Your task to perform on an android device: Turn on the flashlight Image 0: 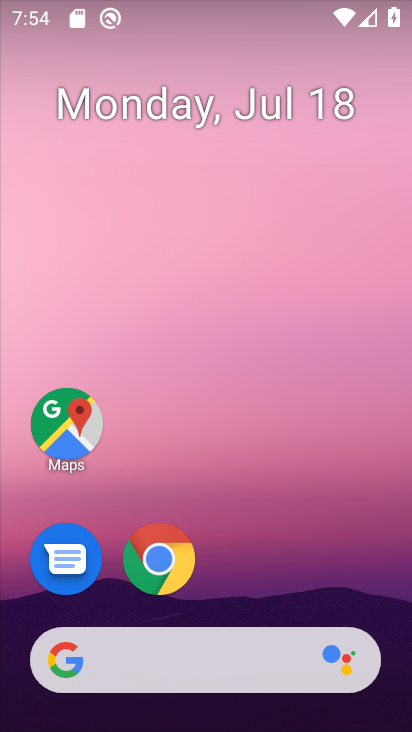
Step 0: drag from (231, 7) to (268, 386)
Your task to perform on an android device: Turn on the flashlight Image 1: 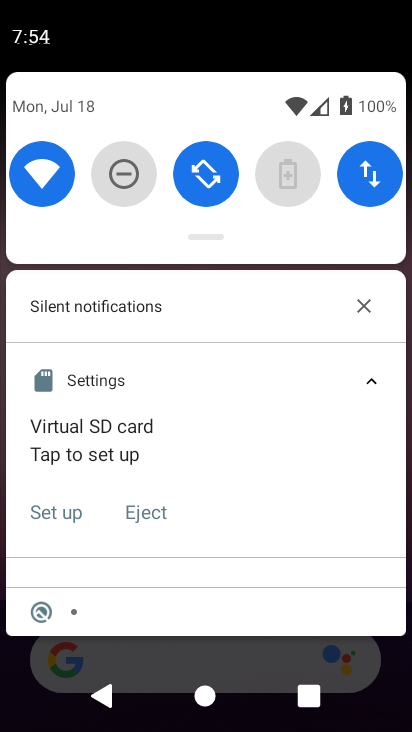
Step 1: drag from (233, 99) to (255, 348)
Your task to perform on an android device: Turn on the flashlight Image 2: 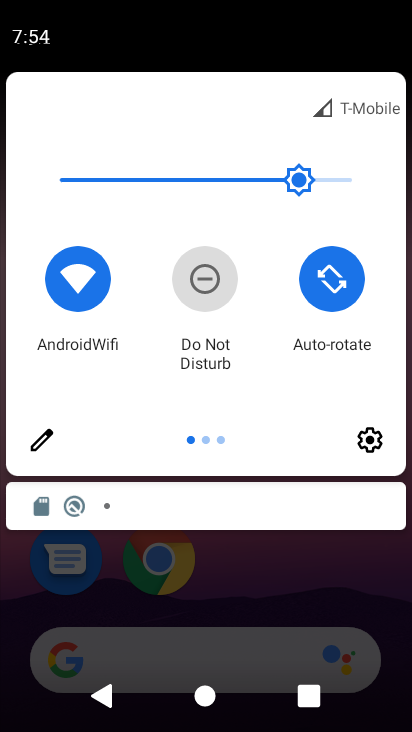
Step 2: click (38, 446)
Your task to perform on an android device: Turn on the flashlight Image 3: 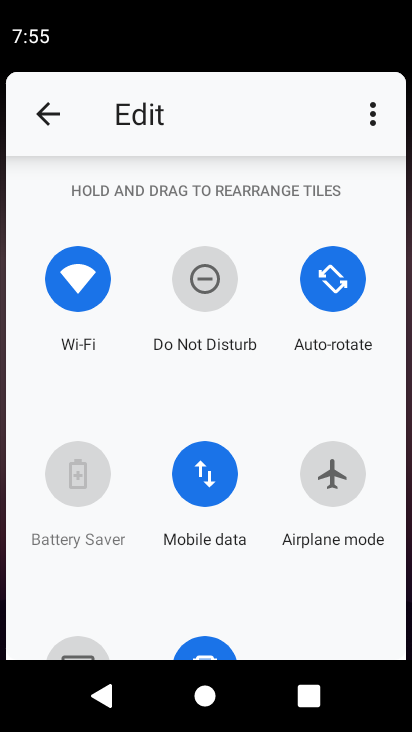
Step 3: task complete